Your task to perform on an android device: change the clock display to digital Image 0: 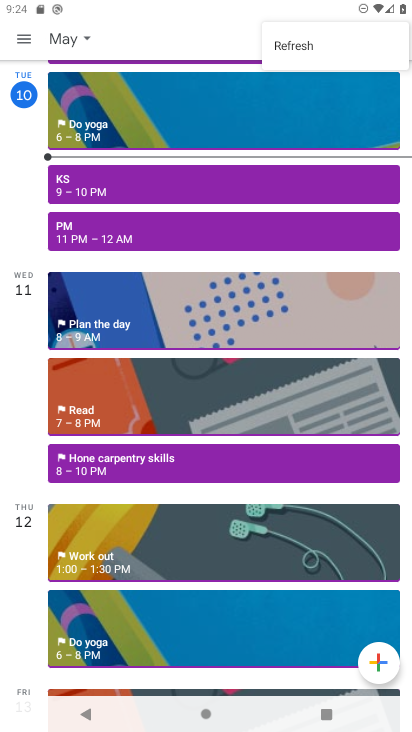
Step 0: press home button
Your task to perform on an android device: change the clock display to digital Image 1: 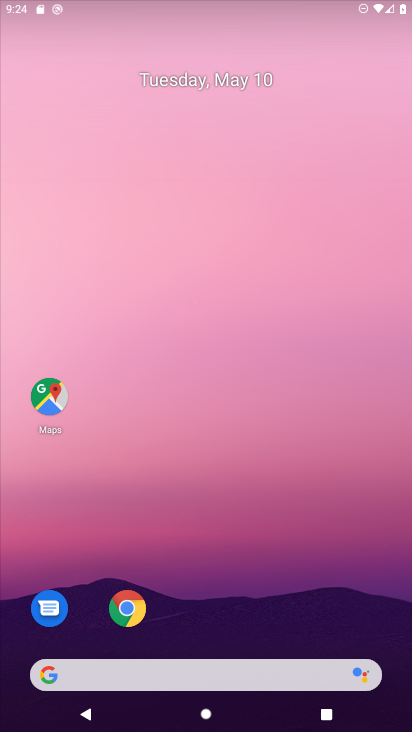
Step 1: drag from (388, 662) to (284, 39)
Your task to perform on an android device: change the clock display to digital Image 2: 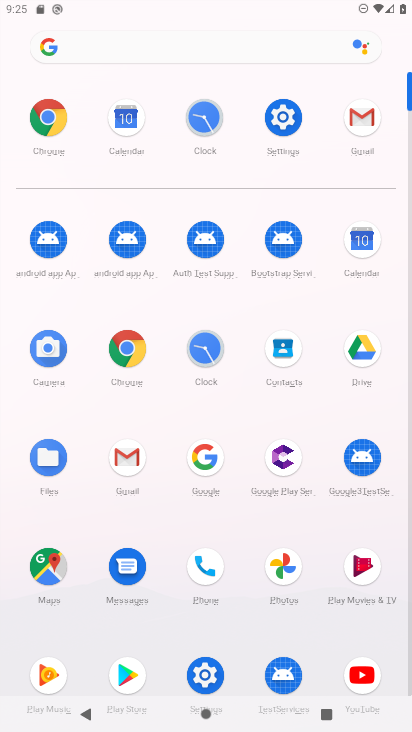
Step 2: click (213, 338)
Your task to perform on an android device: change the clock display to digital Image 3: 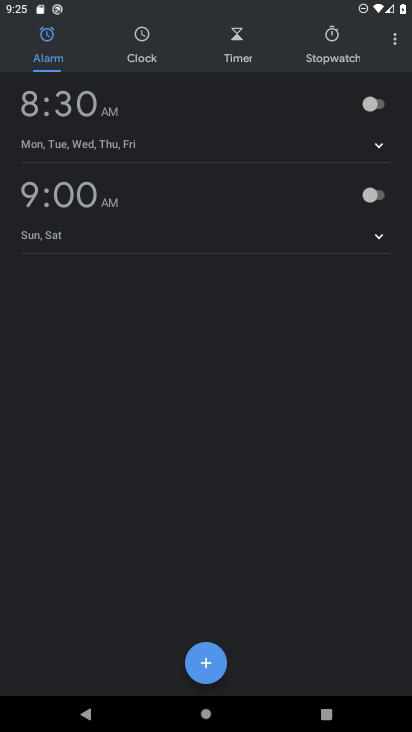
Step 3: click (390, 36)
Your task to perform on an android device: change the clock display to digital Image 4: 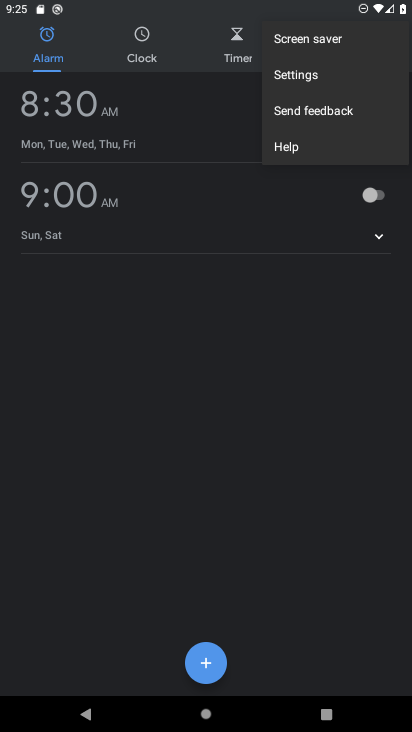
Step 4: click (313, 78)
Your task to perform on an android device: change the clock display to digital Image 5: 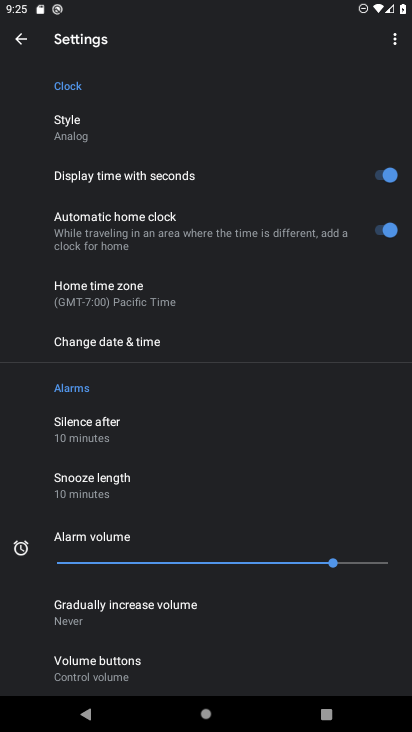
Step 5: click (118, 126)
Your task to perform on an android device: change the clock display to digital Image 6: 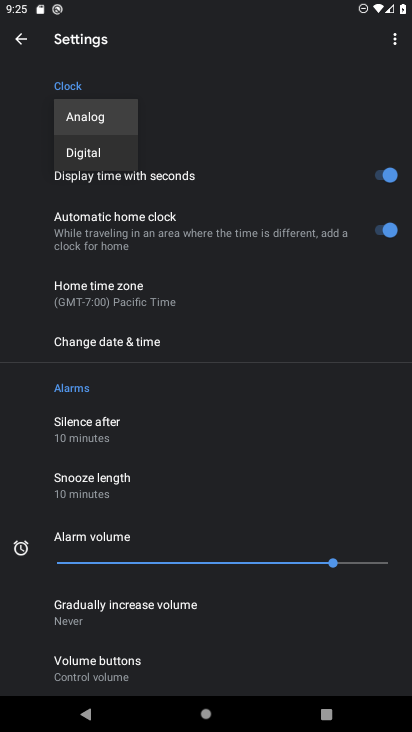
Step 6: click (114, 151)
Your task to perform on an android device: change the clock display to digital Image 7: 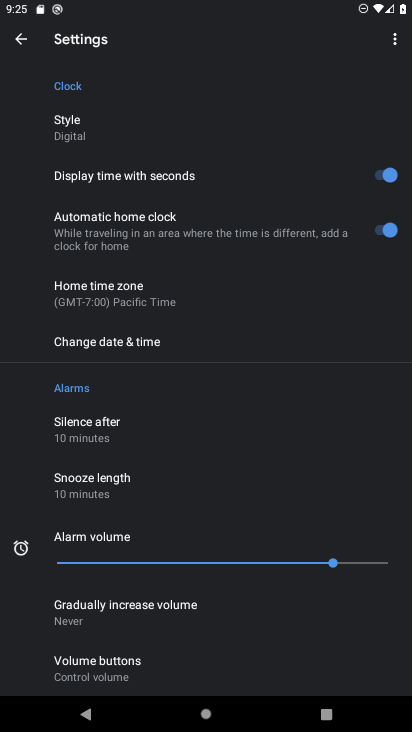
Step 7: task complete